Your task to perform on an android device: Go to Amazon Image 0: 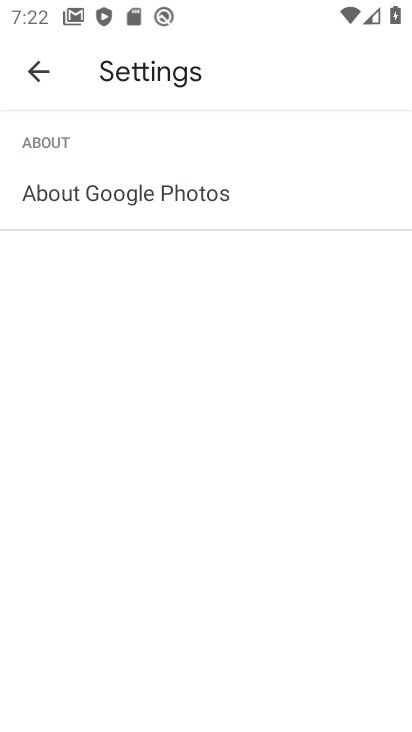
Step 0: press home button
Your task to perform on an android device: Go to Amazon Image 1: 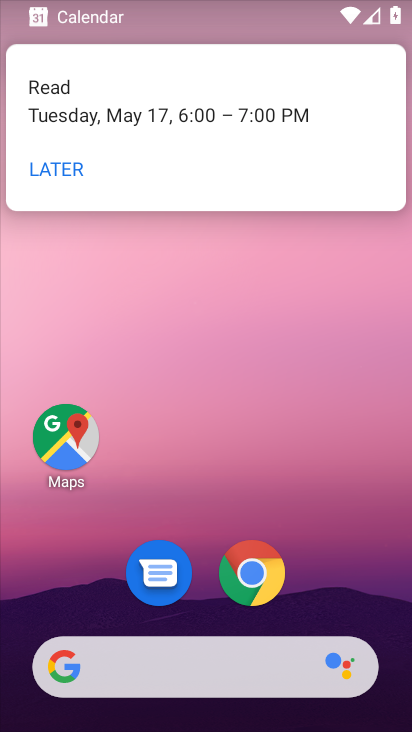
Step 1: click (262, 570)
Your task to perform on an android device: Go to Amazon Image 2: 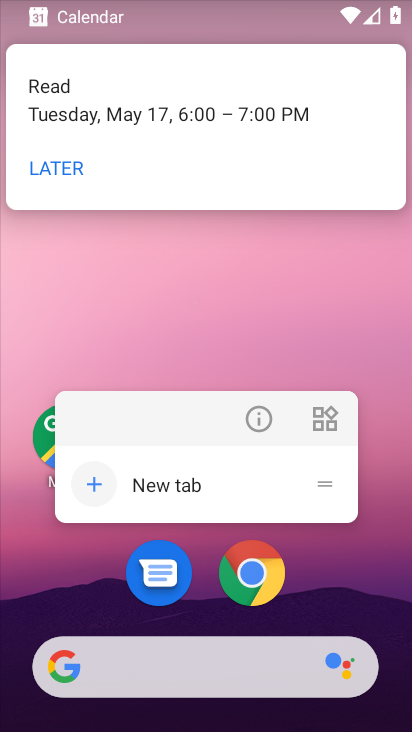
Step 2: click (262, 570)
Your task to perform on an android device: Go to Amazon Image 3: 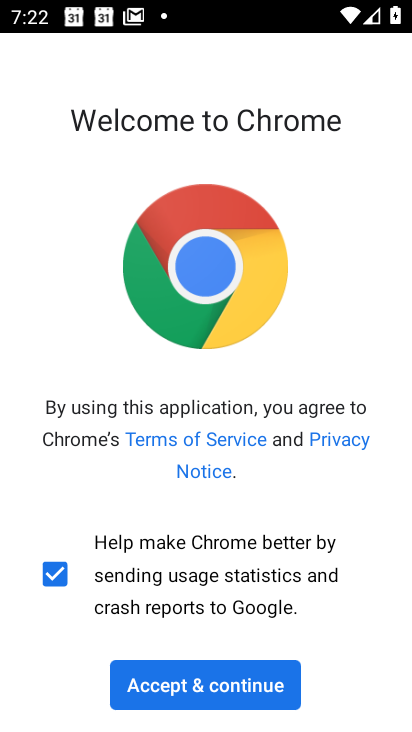
Step 3: click (224, 682)
Your task to perform on an android device: Go to Amazon Image 4: 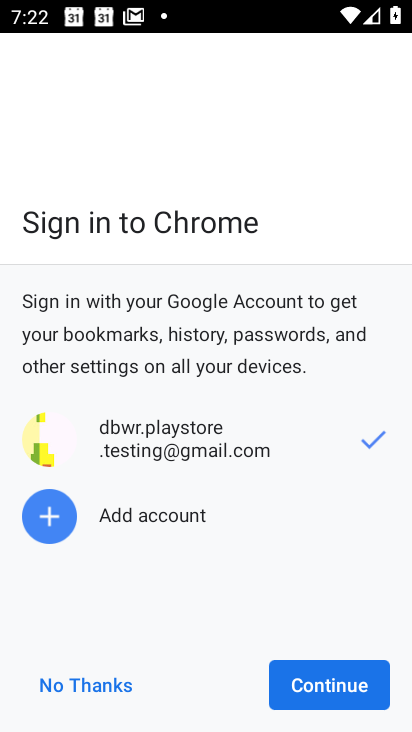
Step 4: click (316, 683)
Your task to perform on an android device: Go to Amazon Image 5: 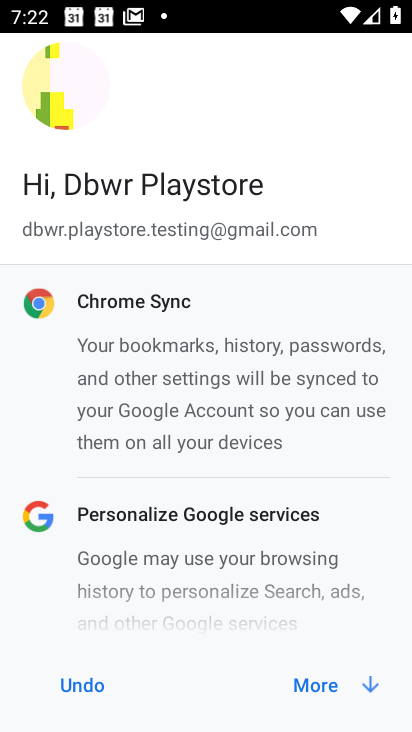
Step 5: click (319, 684)
Your task to perform on an android device: Go to Amazon Image 6: 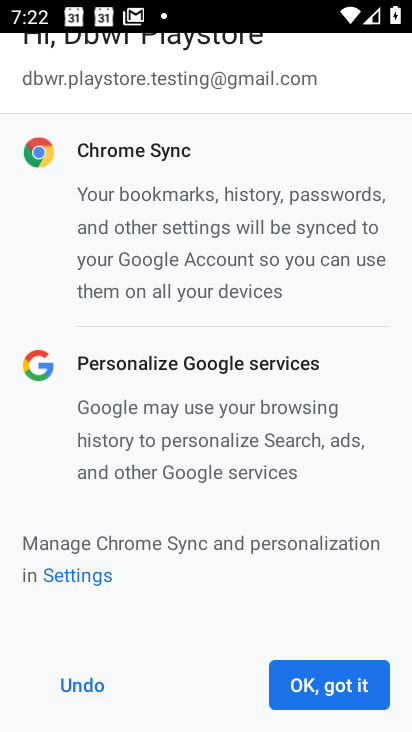
Step 6: click (319, 684)
Your task to perform on an android device: Go to Amazon Image 7: 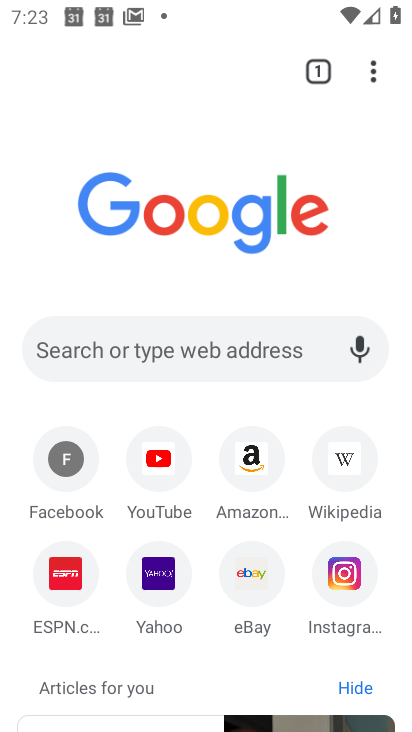
Step 7: click (248, 454)
Your task to perform on an android device: Go to Amazon Image 8: 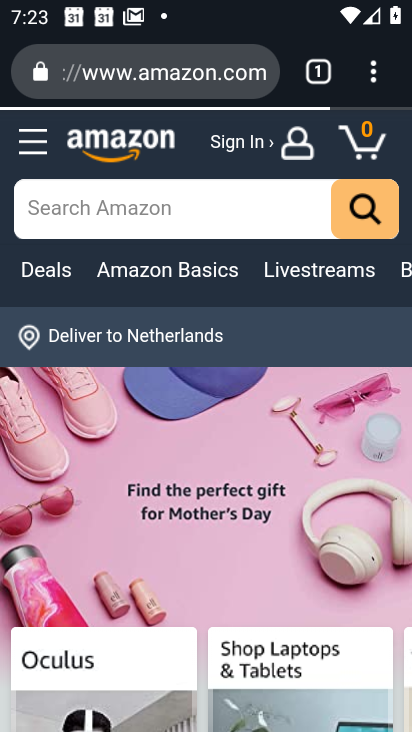
Step 8: task complete